Your task to perform on an android device: Toggle the flashlight Image 0: 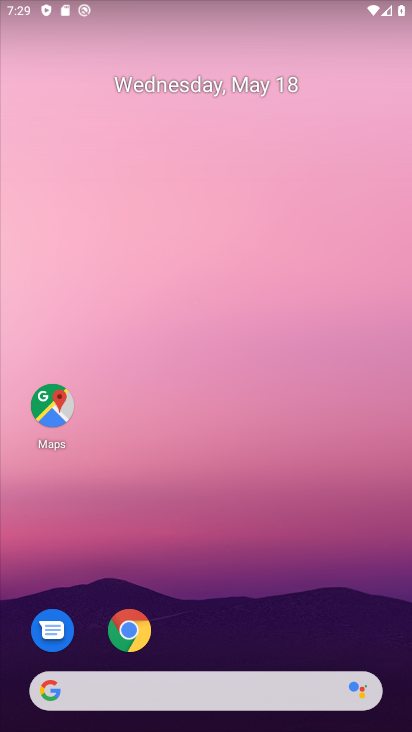
Step 0: drag from (236, 578) to (173, 89)
Your task to perform on an android device: Toggle the flashlight Image 1: 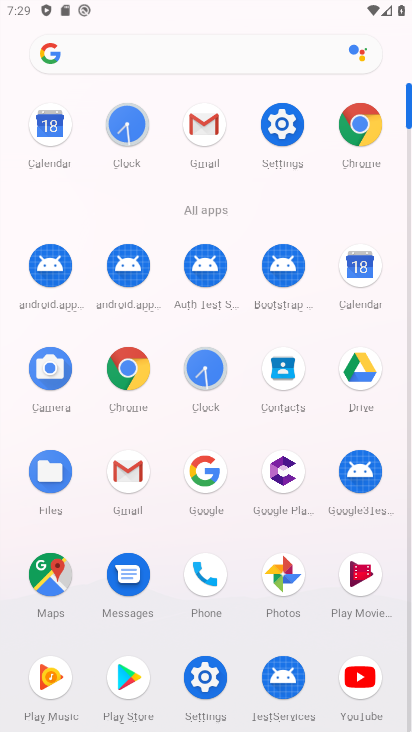
Step 1: click (278, 126)
Your task to perform on an android device: Toggle the flashlight Image 2: 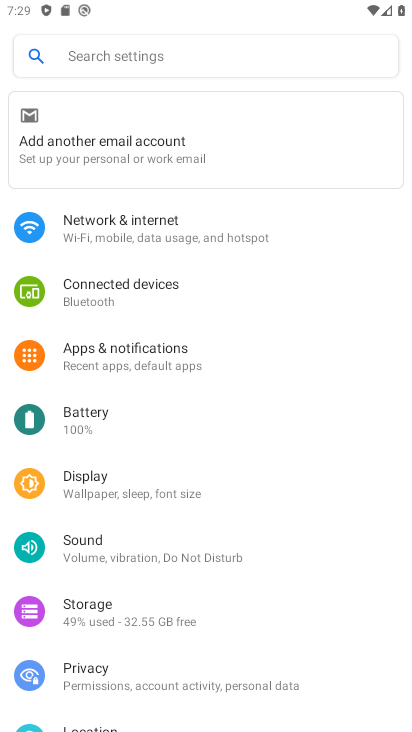
Step 2: click (85, 492)
Your task to perform on an android device: Toggle the flashlight Image 3: 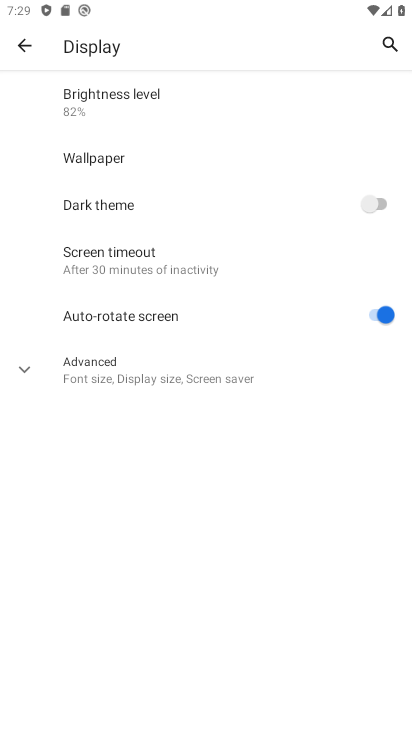
Step 3: task complete